Your task to perform on an android device: check battery use Image 0: 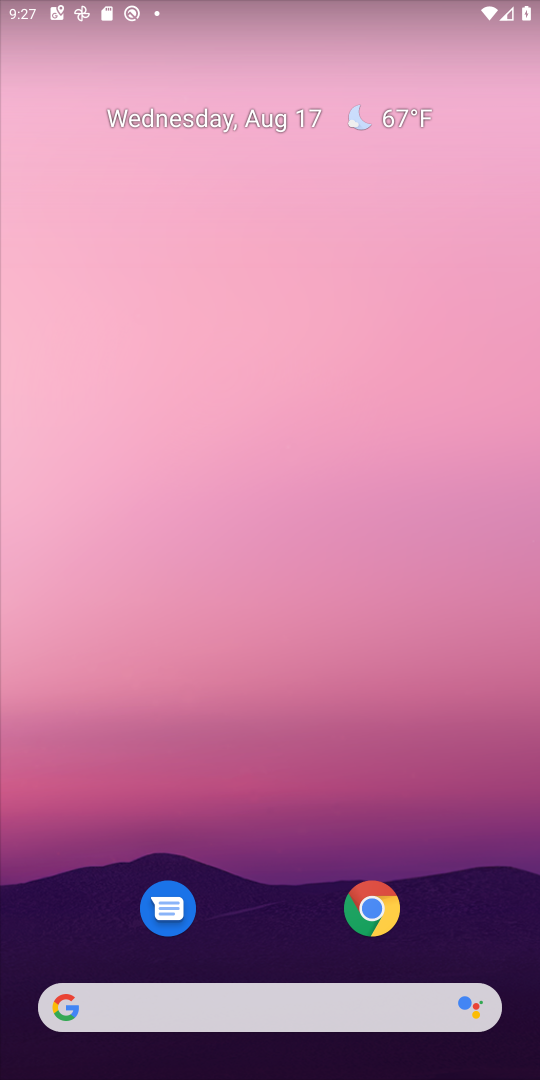
Step 0: drag from (275, 932) to (268, 5)
Your task to perform on an android device: check battery use Image 1: 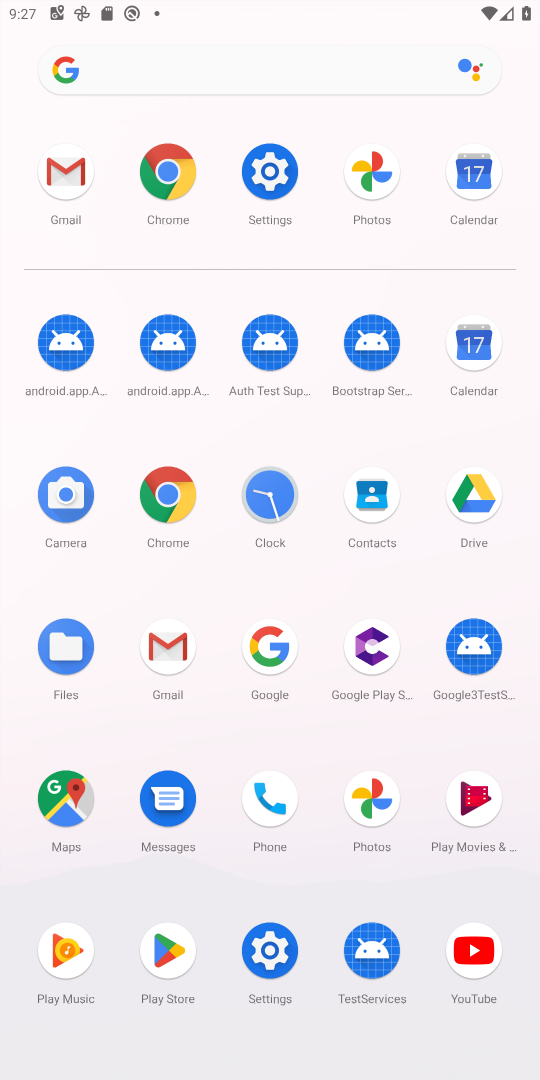
Step 1: click (265, 942)
Your task to perform on an android device: check battery use Image 2: 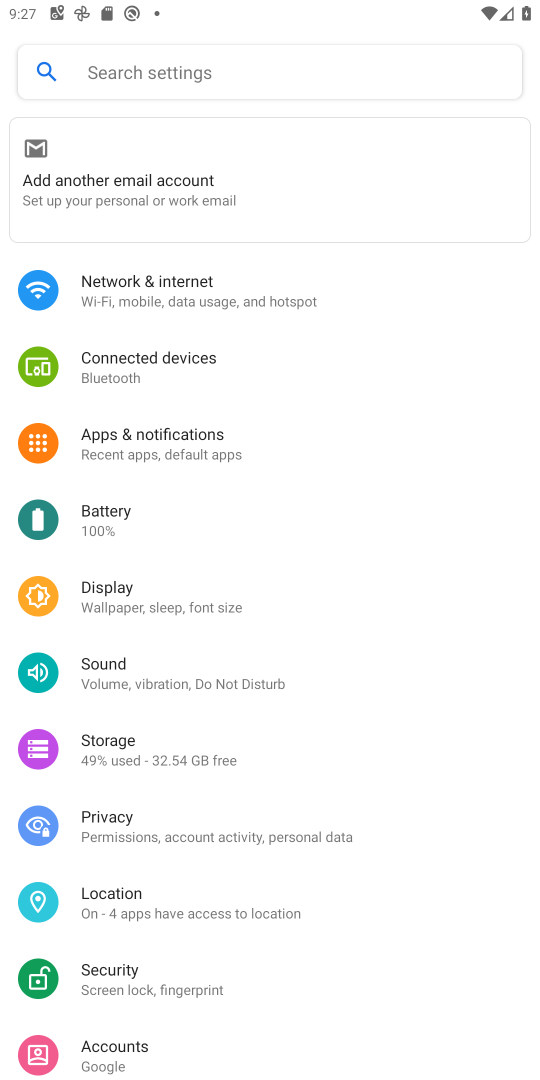
Step 2: click (98, 516)
Your task to perform on an android device: check battery use Image 3: 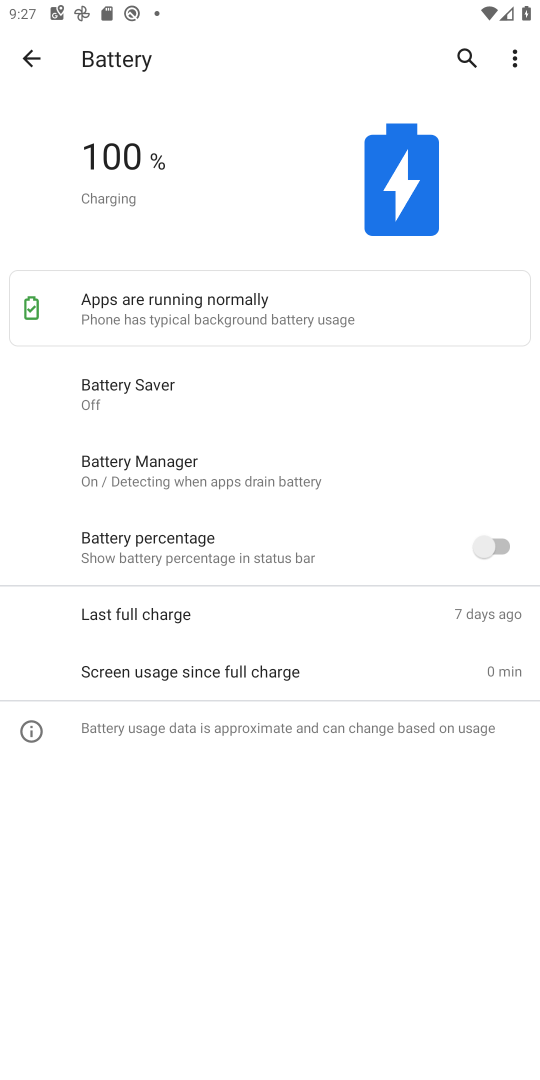
Step 3: task complete